Your task to perform on an android device: Open Chrome and go to settings Image 0: 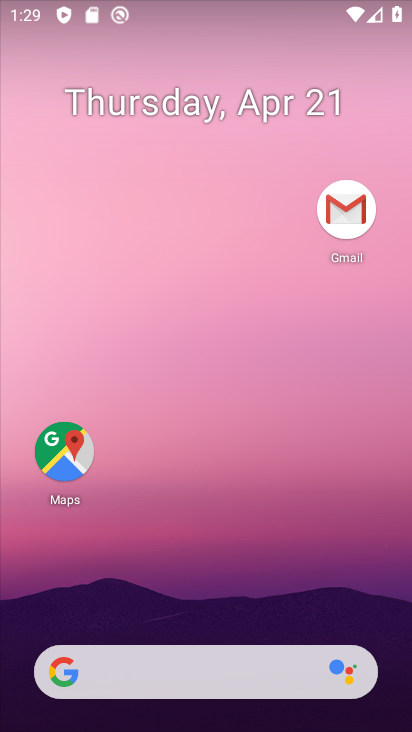
Step 0: drag from (294, 583) to (254, 83)
Your task to perform on an android device: Open Chrome and go to settings Image 1: 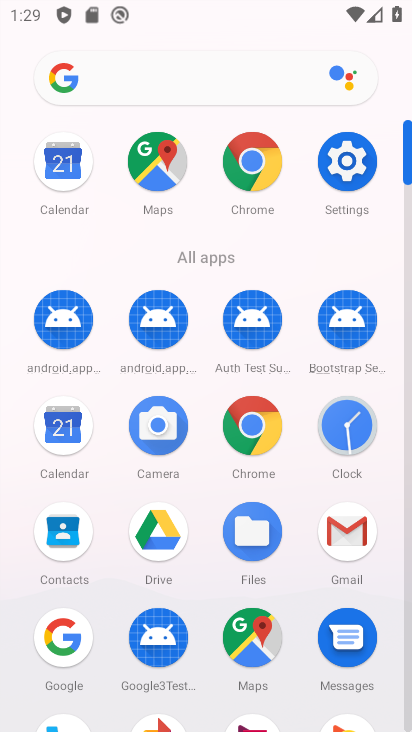
Step 1: click (261, 426)
Your task to perform on an android device: Open Chrome and go to settings Image 2: 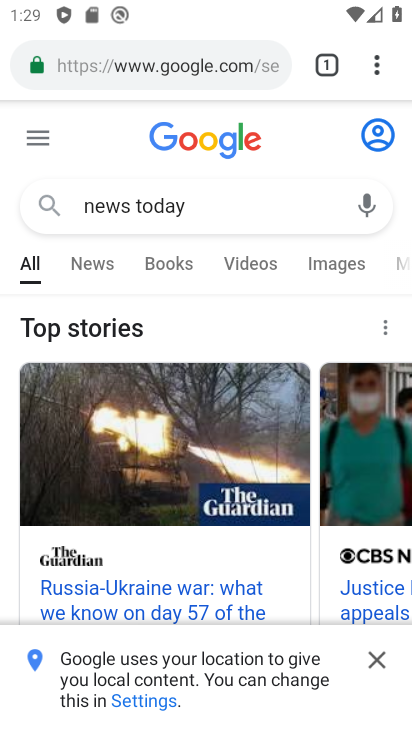
Step 2: drag from (372, 59) to (191, 658)
Your task to perform on an android device: Open Chrome and go to settings Image 3: 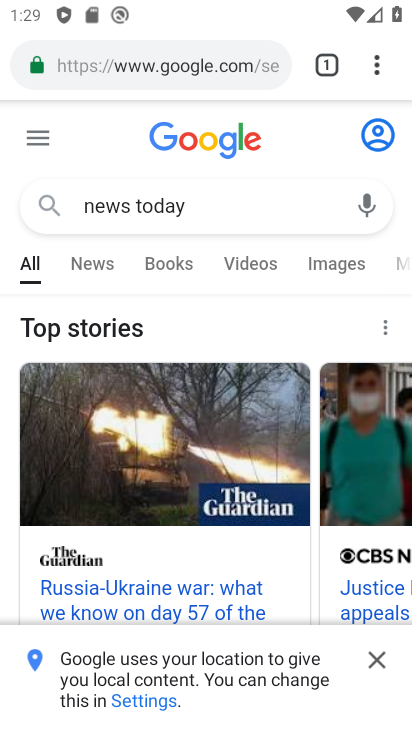
Step 3: click (182, 637)
Your task to perform on an android device: Open Chrome and go to settings Image 4: 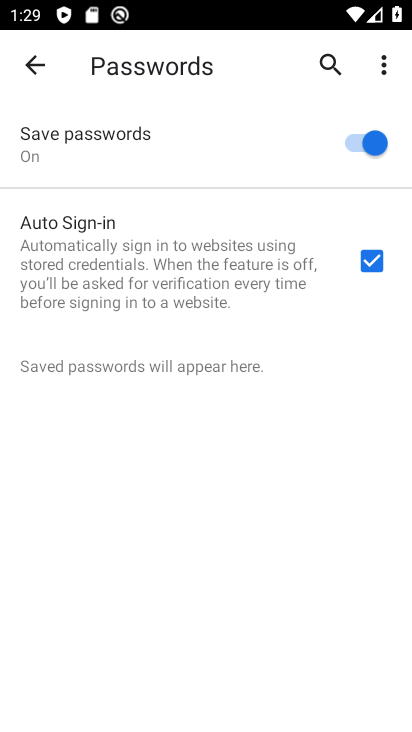
Step 4: task complete